Your task to perform on an android device: Open Google Maps and go to "Timeline" Image 0: 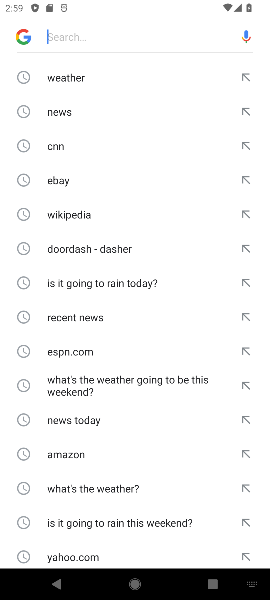
Step 0: press home button
Your task to perform on an android device: Open Google Maps and go to "Timeline" Image 1: 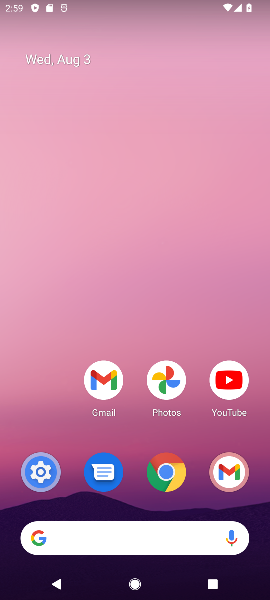
Step 1: drag from (230, 510) to (56, 19)
Your task to perform on an android device: Open Google Maps and go to "Timeline" Image 2: 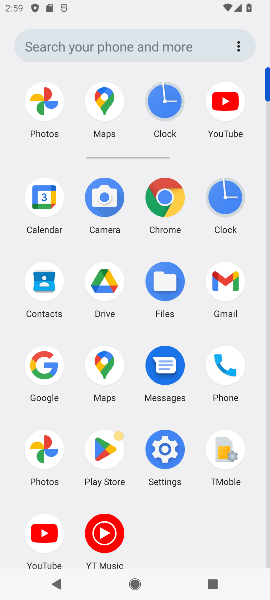
Step 2: click (95, 362)
Your task to perform on an android device: Open Google Maps and go to "Timeline" Image 3: 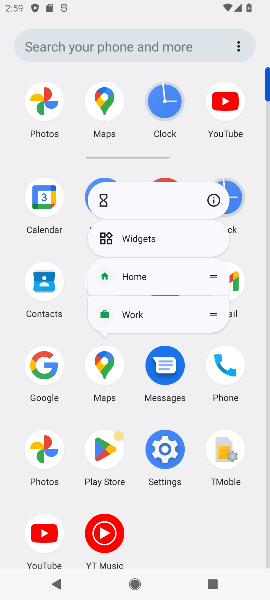
Step 3: click (95, 362)
Your task to perform on an android device: Open Google Maps and go to "Timeline" Image 4: 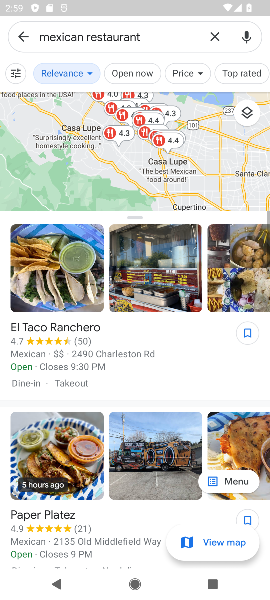
Step 4: press back button
Your task to perform on an android device: Open Google Maps and go to "Timeline" Image 5: 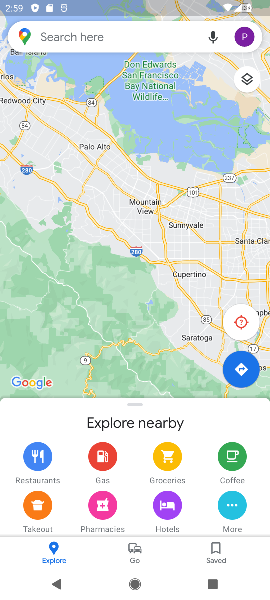
Step 5: click (19, 34)
Your task to perform on an android device: Open Google Maps and go to "Timeline" Image 6: 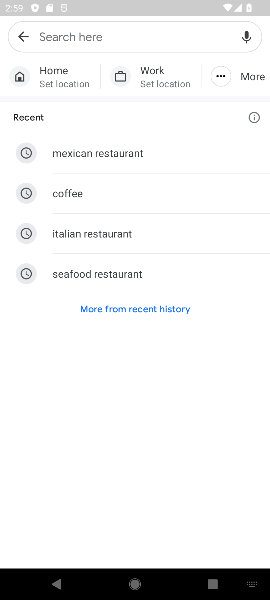
Step 6: press back button
Your task to perform on an android device: Open Google Maps and go to "Timeline" Image 7: 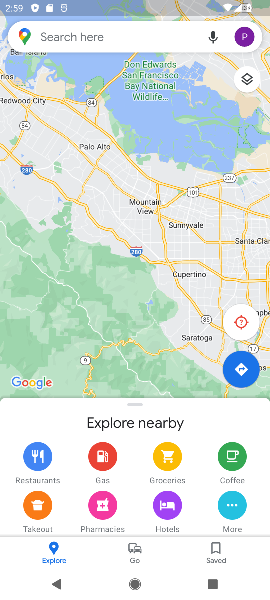
Step 7: click (239, 43)
Your task to perform on an android device: Open Google Maps and go to "Timeline" Image 8: 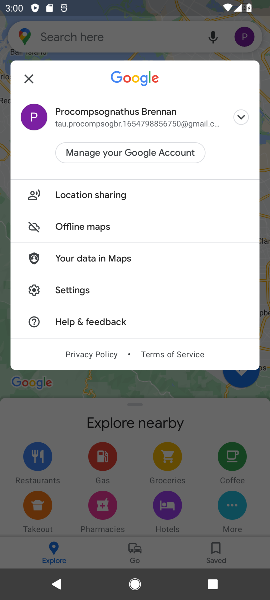
Step 8: press back button
Your task to perform on an android device: Open Google Maps and go to "Timeline" Image 9: 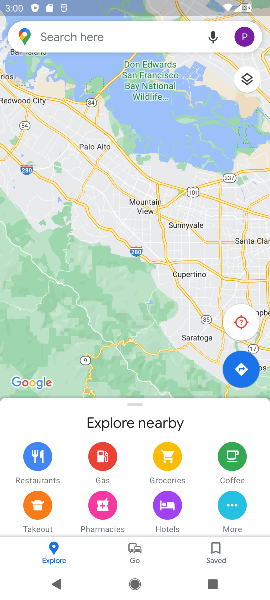
Step 9: click (243, 38)
Your task to perform on an android device: Open Google Maps and go to "Timeline" Image 10: 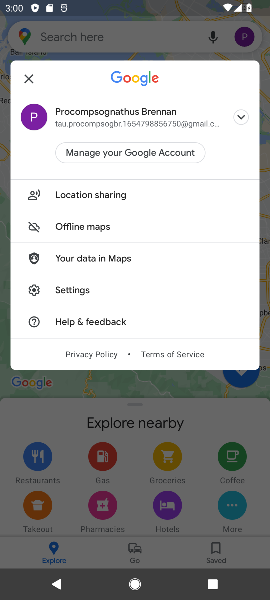
Step 10: task complete